Your task to perform on an android device: Do I have any events today? Image 0: 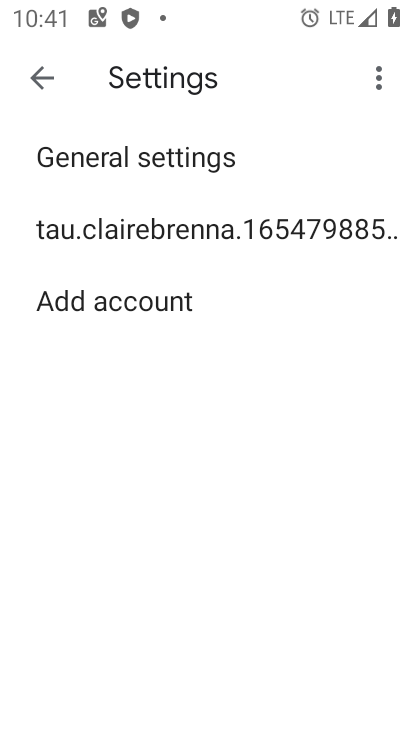
Step 0: press home button
Your task to perform on an android device: Do I have any events today? Image 1: 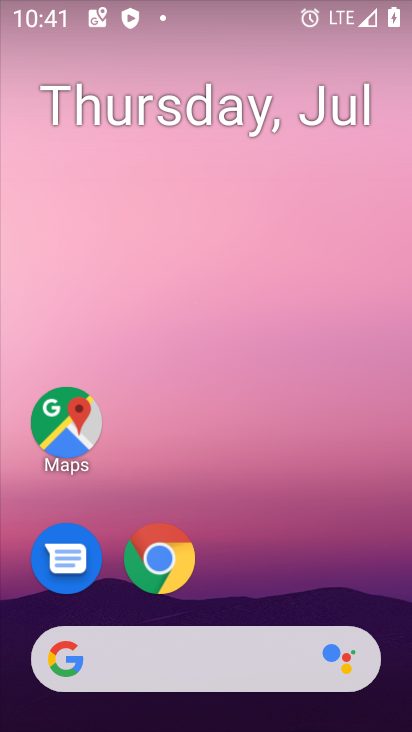
Step 1: drag from (314, 534) to (348, 57)
Your task to perform on an android device: Do I have any events today? Image 2: 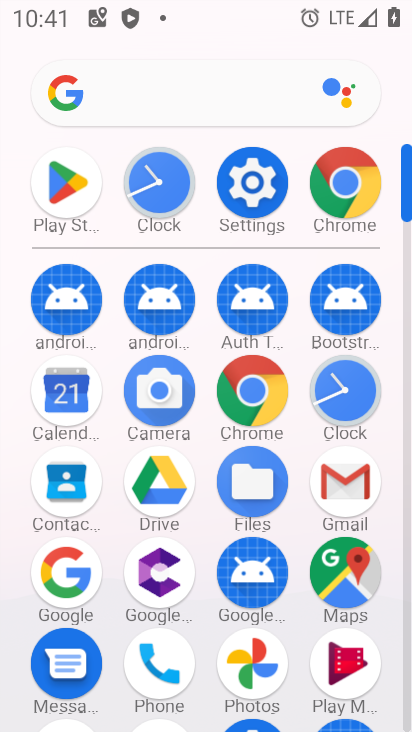
Step 2: click (78, 401)
Your task to perform on an android device: Do I have any events today? Image 3: 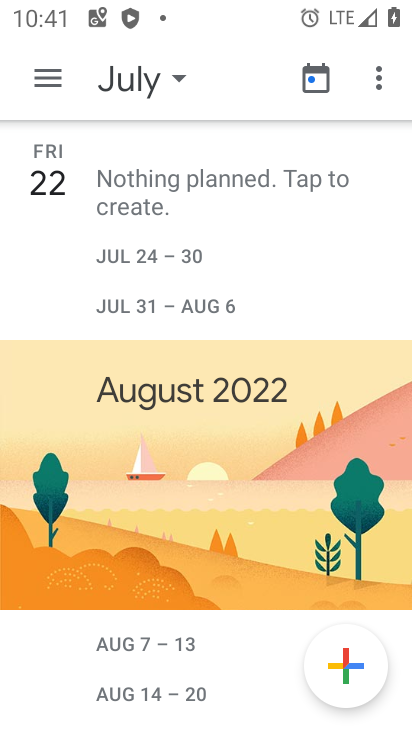
Step 3: task complete